Your task to perform on an android device: Open my contact list Image 0: 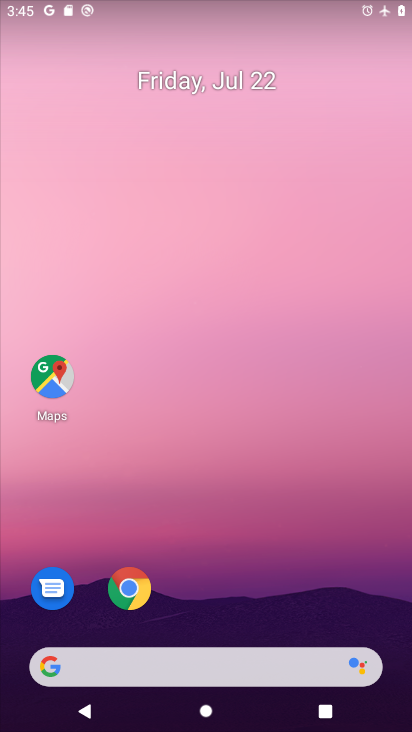
Step 0: drag from (221, 619) to (292, 43)
Your task to perform on an android device: Open my contact list Image 1: 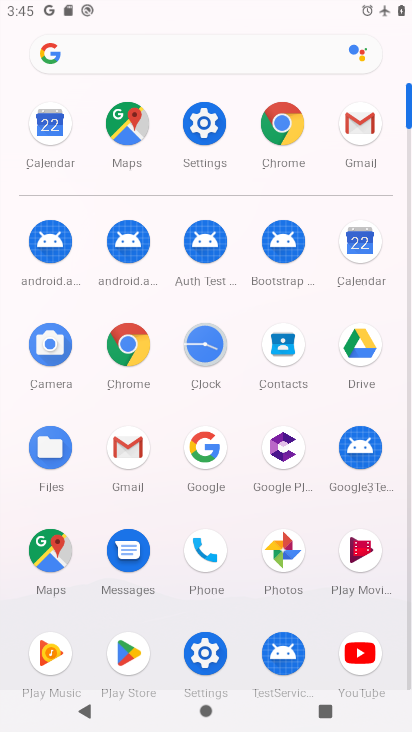
Step 1: click (283, 349)
Your task to perform on an android device: Open my contact list Image 2: 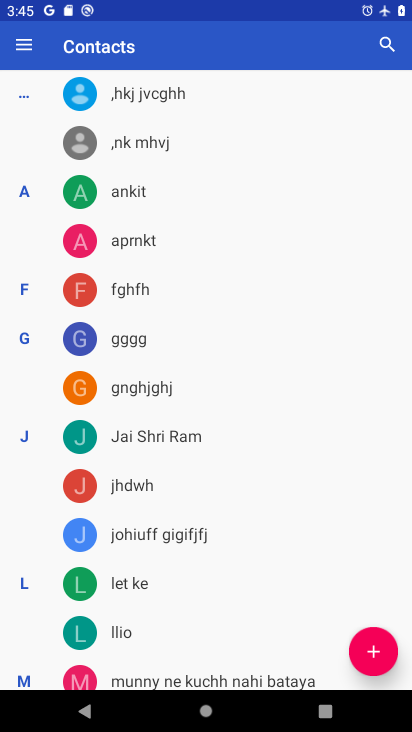
Step 2: task complete